Your task to perform on an android device: turn on showing notifications on the lock screen Image 0: 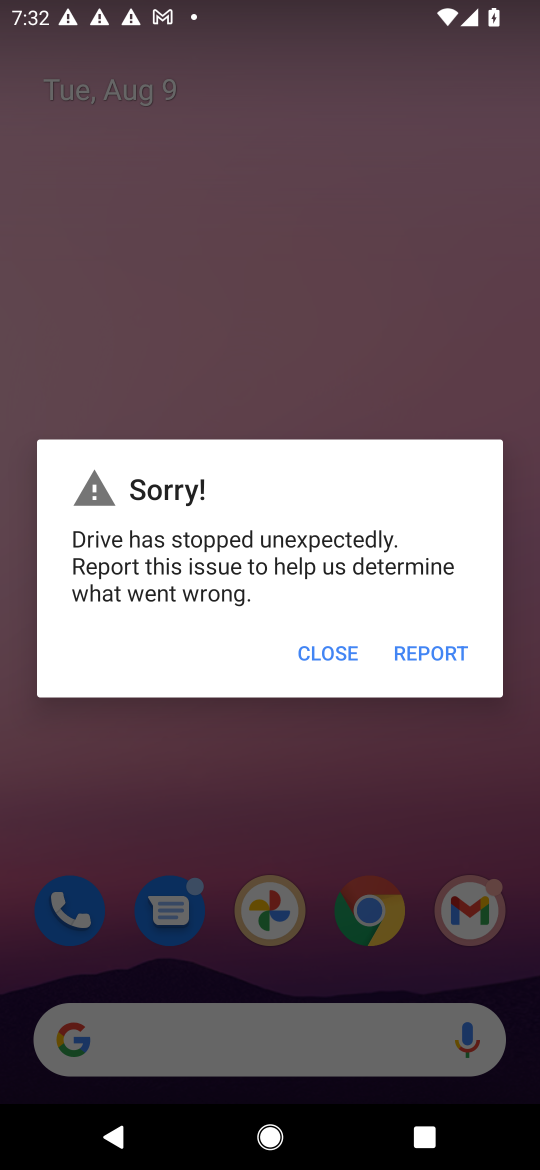
Step 0: click (318, 655)
Your task to perform on an android device: turn on showing notifications on the lock screen Image 1: 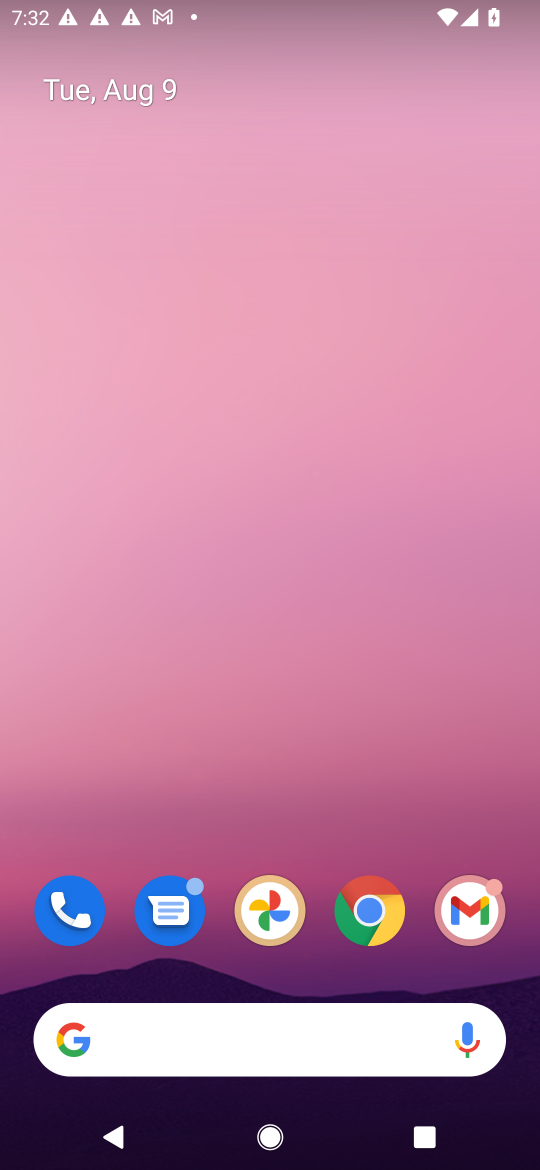
Step 1: drag from (278, 1074) to (236, 298)
Your task to perform on an android device: turn on showing notifications on the lock screen Image 2: 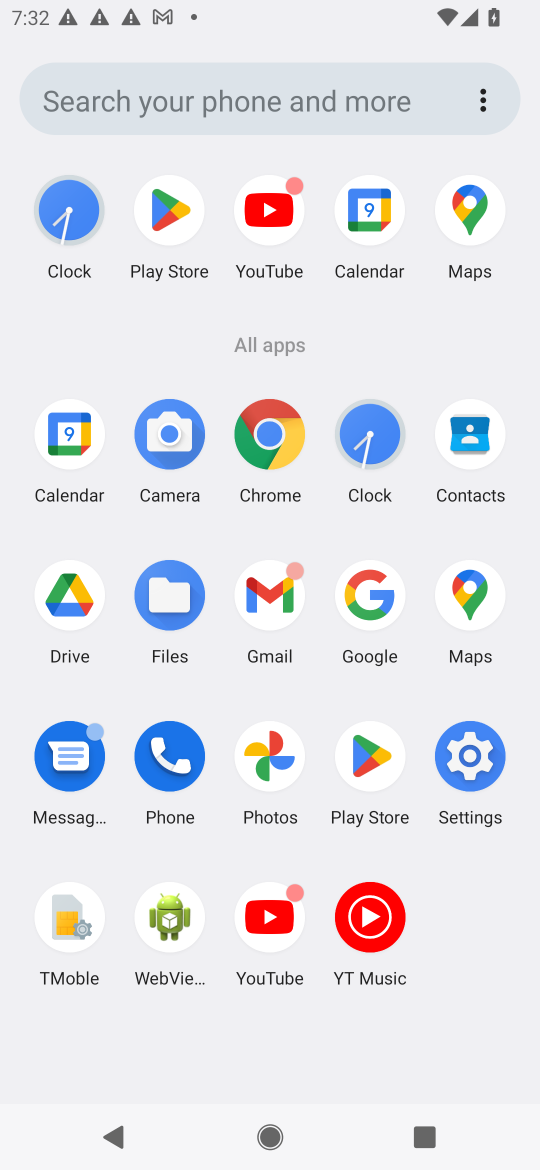
Step 2: click (457, 802)
Your task to perform on an android device: turn on showing notifications on the lock screen Image 3: 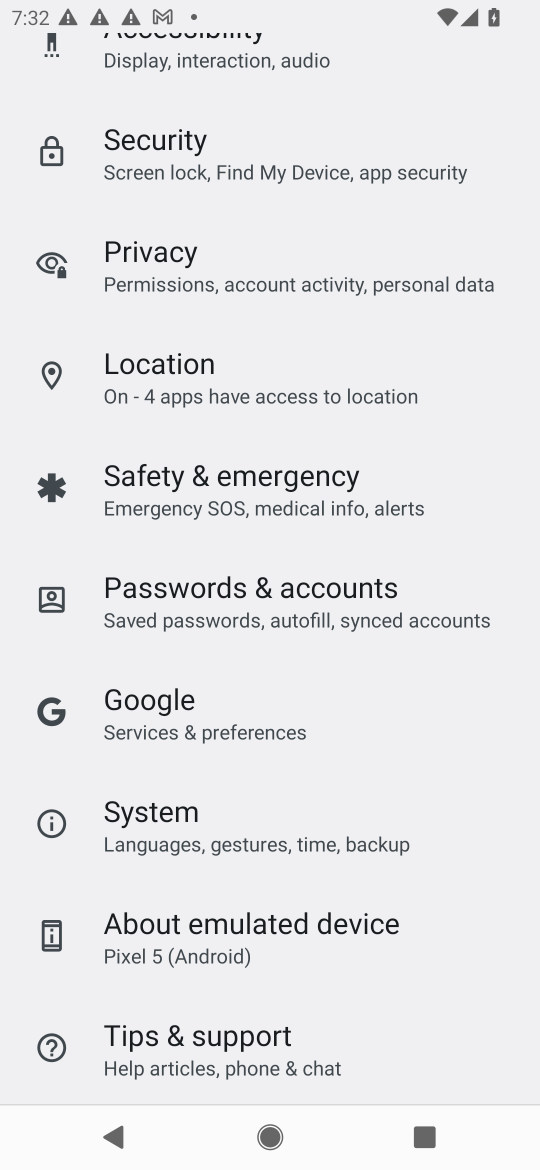
Step 3: drag from (369, 435) to (309, 1097)
Your task to perform on an android device: turn on showing notifications on the lock screen Image 4: 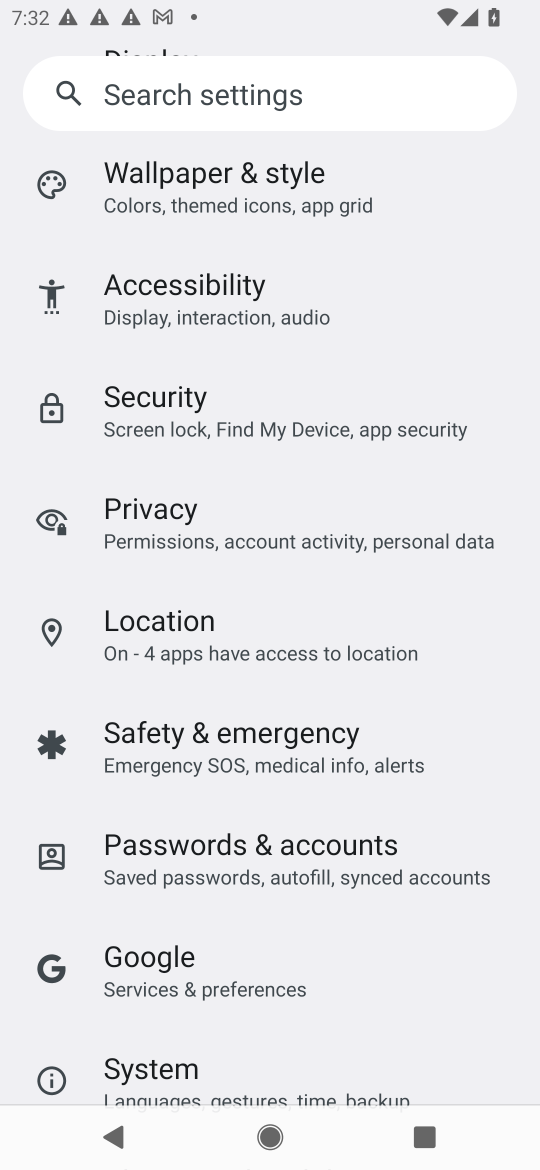
Step 4: drag from (262, 326) to (196, 872)
Your task to perform on an android device: turn on showing notifications on the lock screen Image 5: 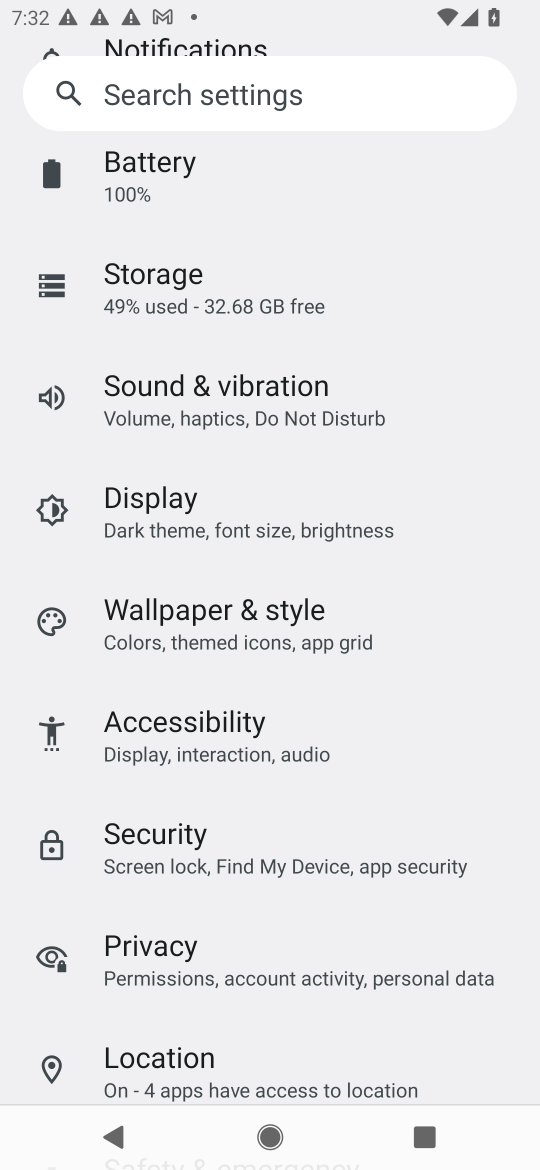
Step 5: drag from (183, 683) to (167, 1074)
Your task to perform on an android device: turn on showing notifications on the lock screen Image 6: 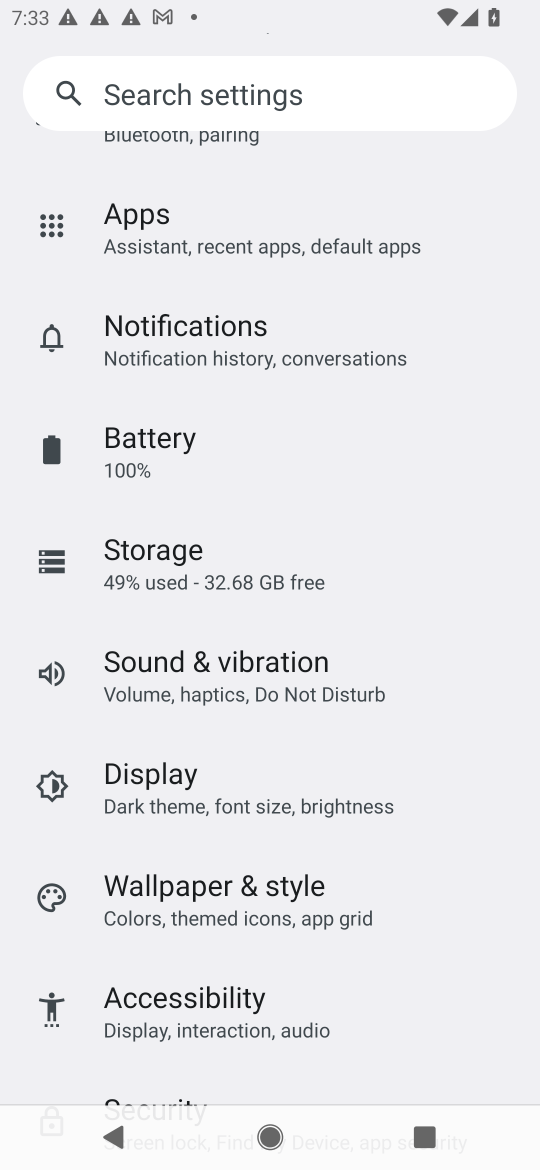
Step 6: click (359, 324)
Your task to perform on an android device: turn on showing notifications on the lock screen Image 7: 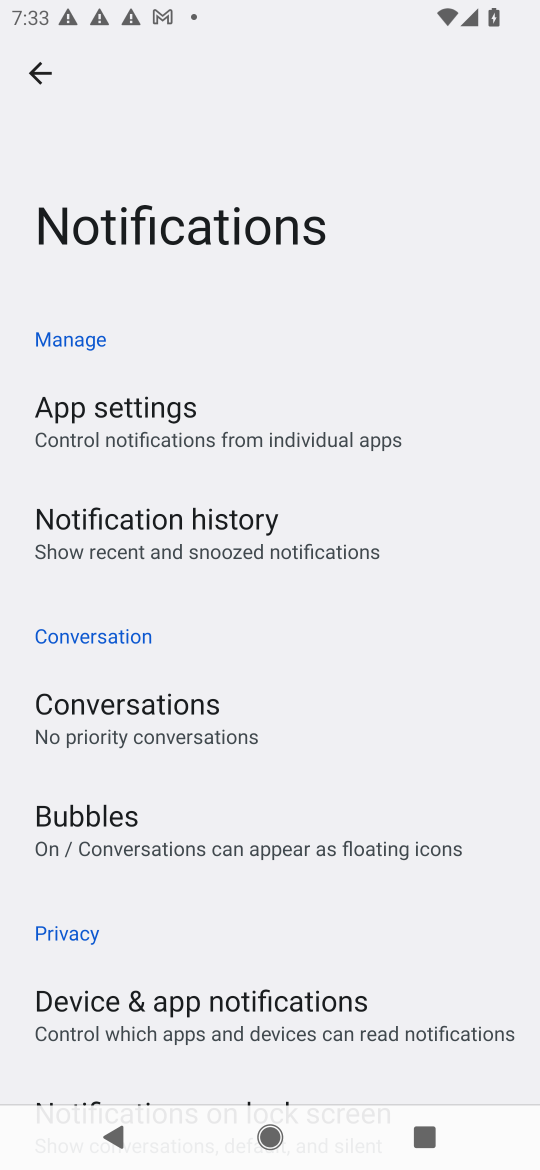
Step 7: drag from (252, 809) to (257, 360)
Your task to perform on an android device: turn on showing notifications on the lock screen Image 8: 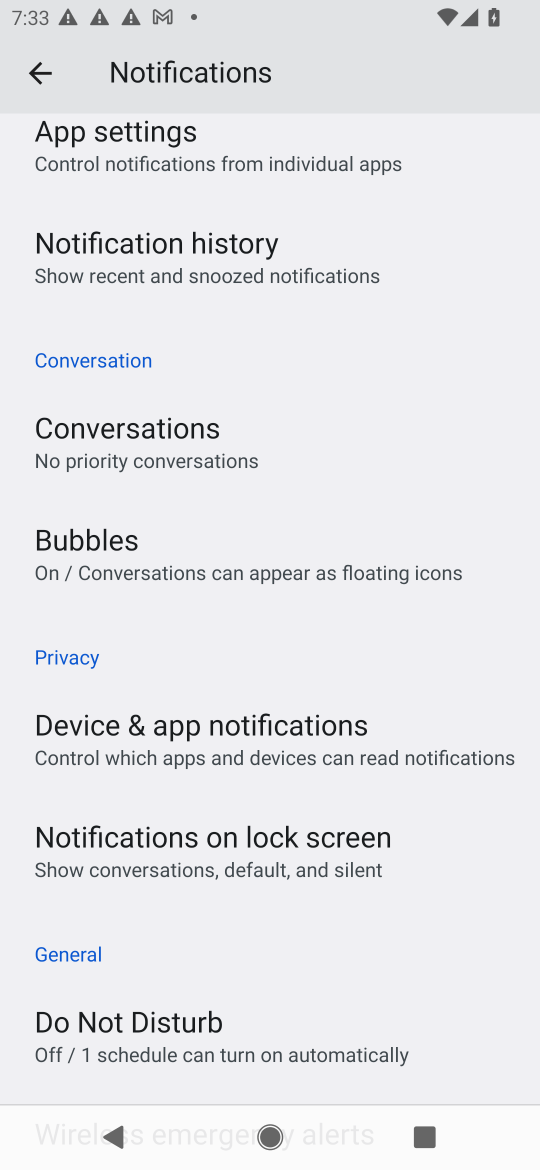
Step 8: click (310, 862)
Your task to perform on an android device: turn on showing notifications on the lock screen Image 9: 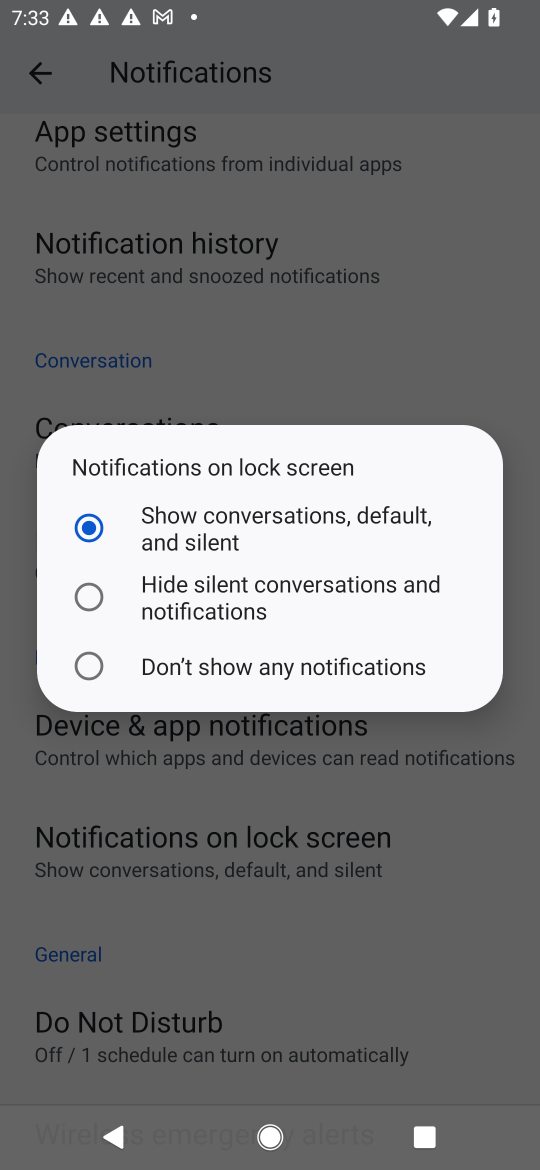
Step 9: click (115, 673)
Your task to perform on an android device: turn on showing notifications on the lock screen Image 10: 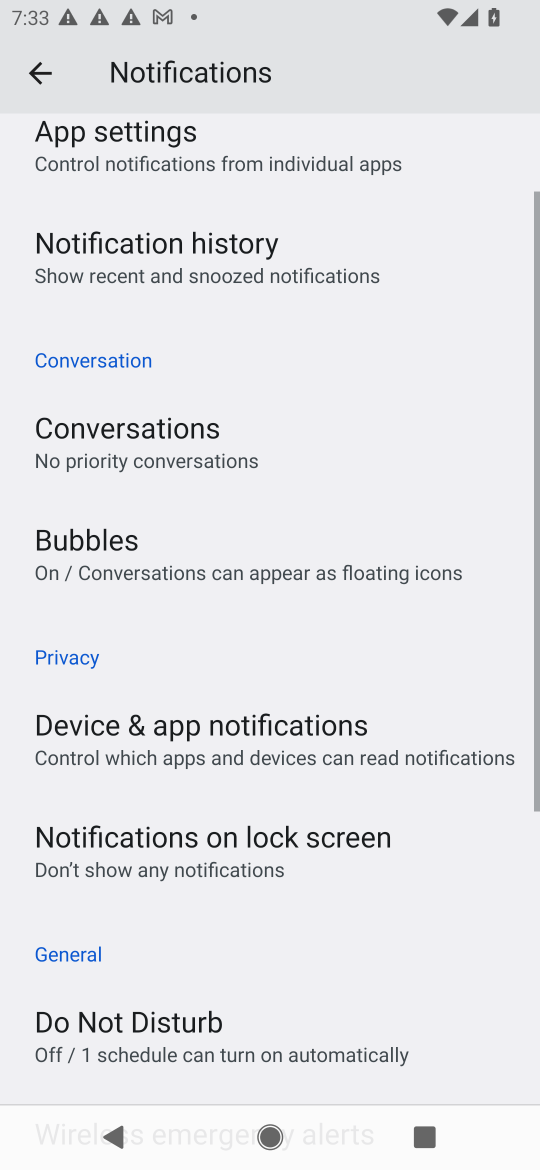
Step 10: task complete